Your task to perform on an android device: turn off sleep mode Image 0: 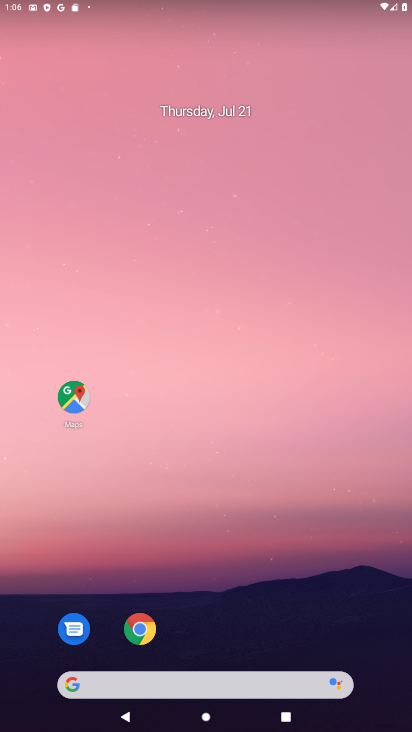
Step 0: drag from (216, 616) to (235, 80)
Your task to perform on an android device: turn off sleep mode Image 1: 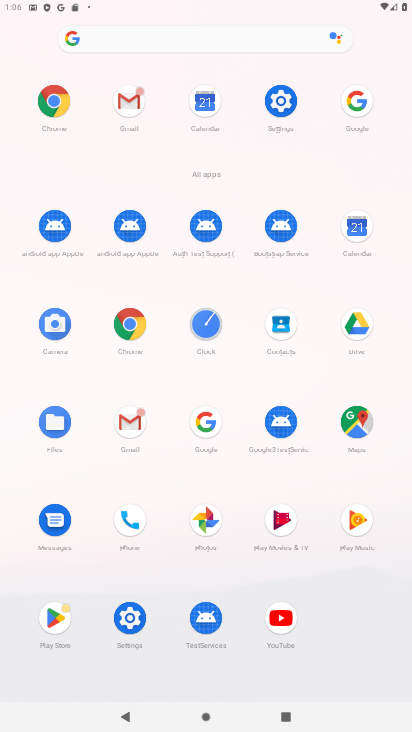
Step 1: click (283, 98)
Your task to perform on an android device: turn off sleep mode Image 2: 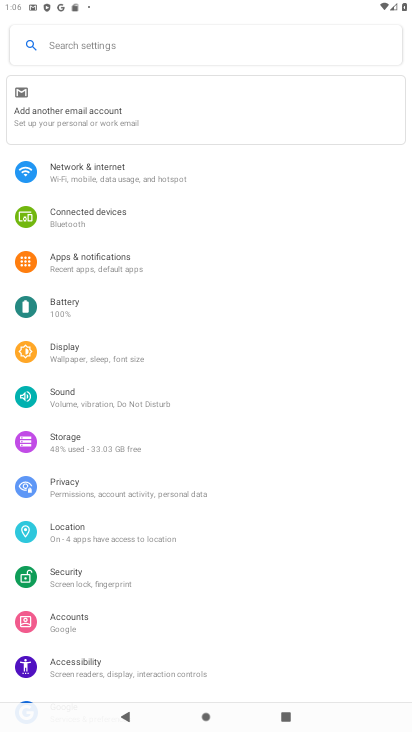
Step 2: click (103, 353)
Your task to perform on an android device: turn off sleep mode Image 3: 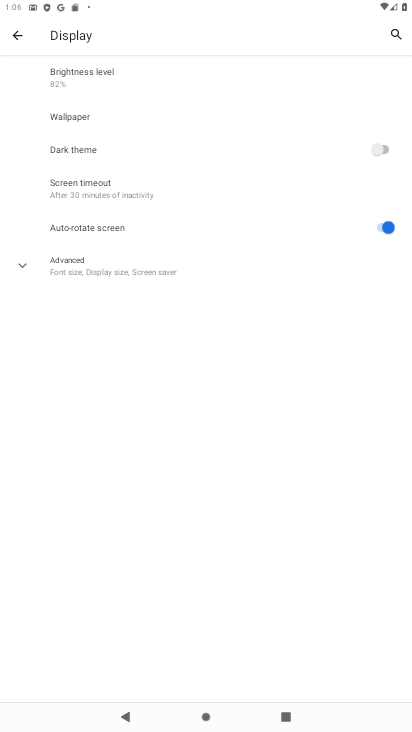
Step 3: click (74, 179)
Your task to perform on an android device: turn off sleep mode Image 4: 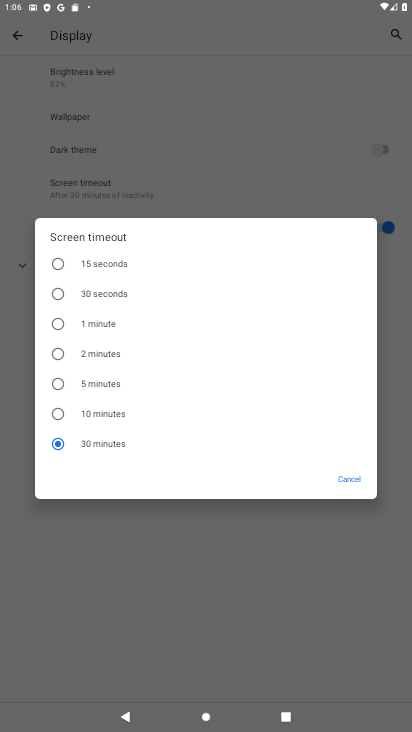
Step 4: task complete